Your task to perform on an android device: How do I get to the nearest Burger King? Image 0: 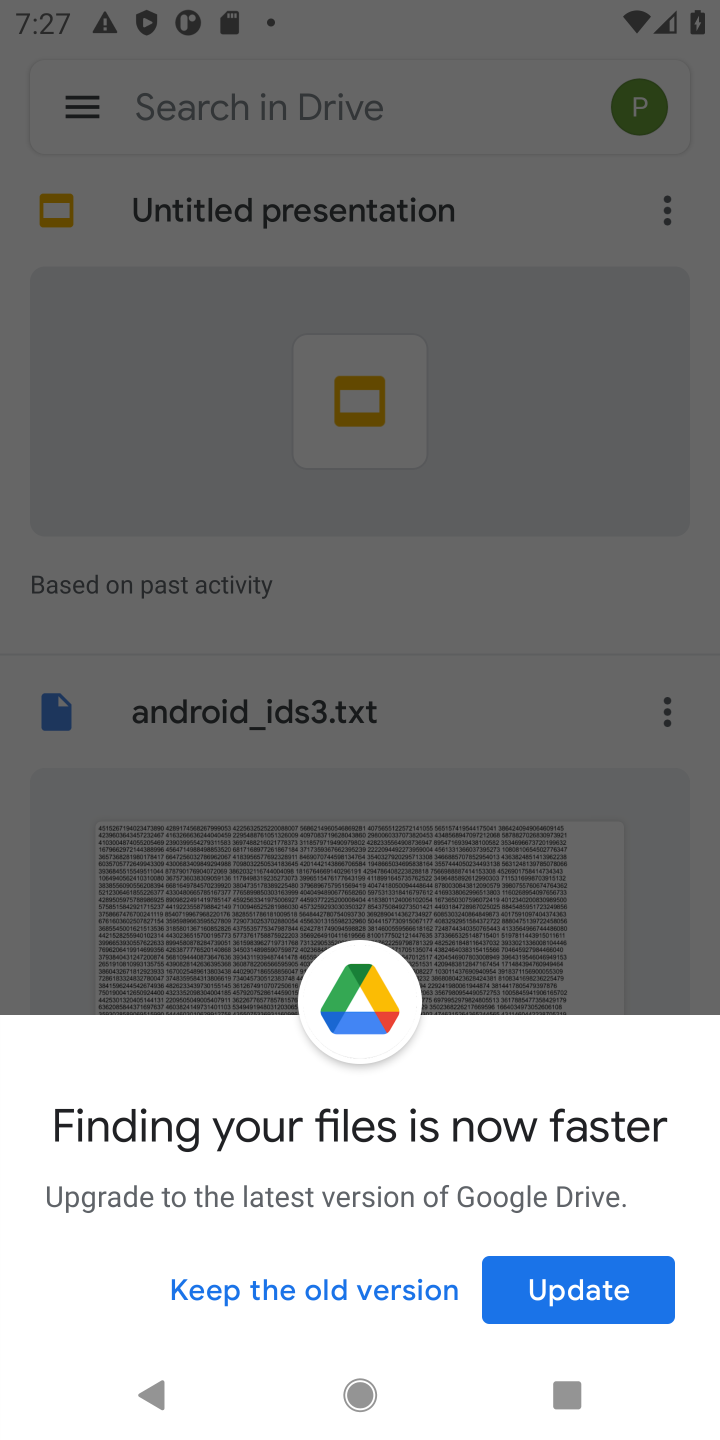
Step 0: press home button
Your task to perform on an android device: How do I get to the nearest Burger King? Image 1: 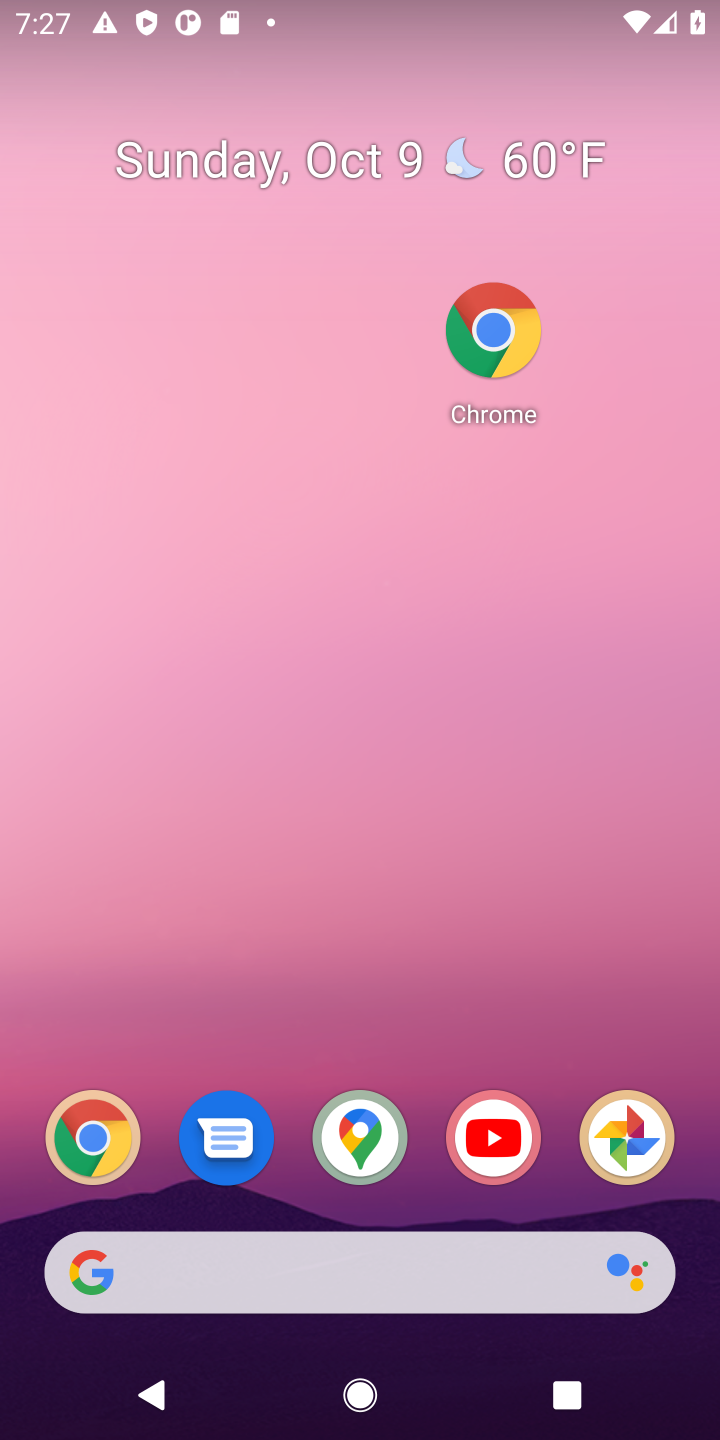
Step 1: click (97, 1139)
Your task to perform on an android device: How do I get to the nearest Burger King? Image 2: 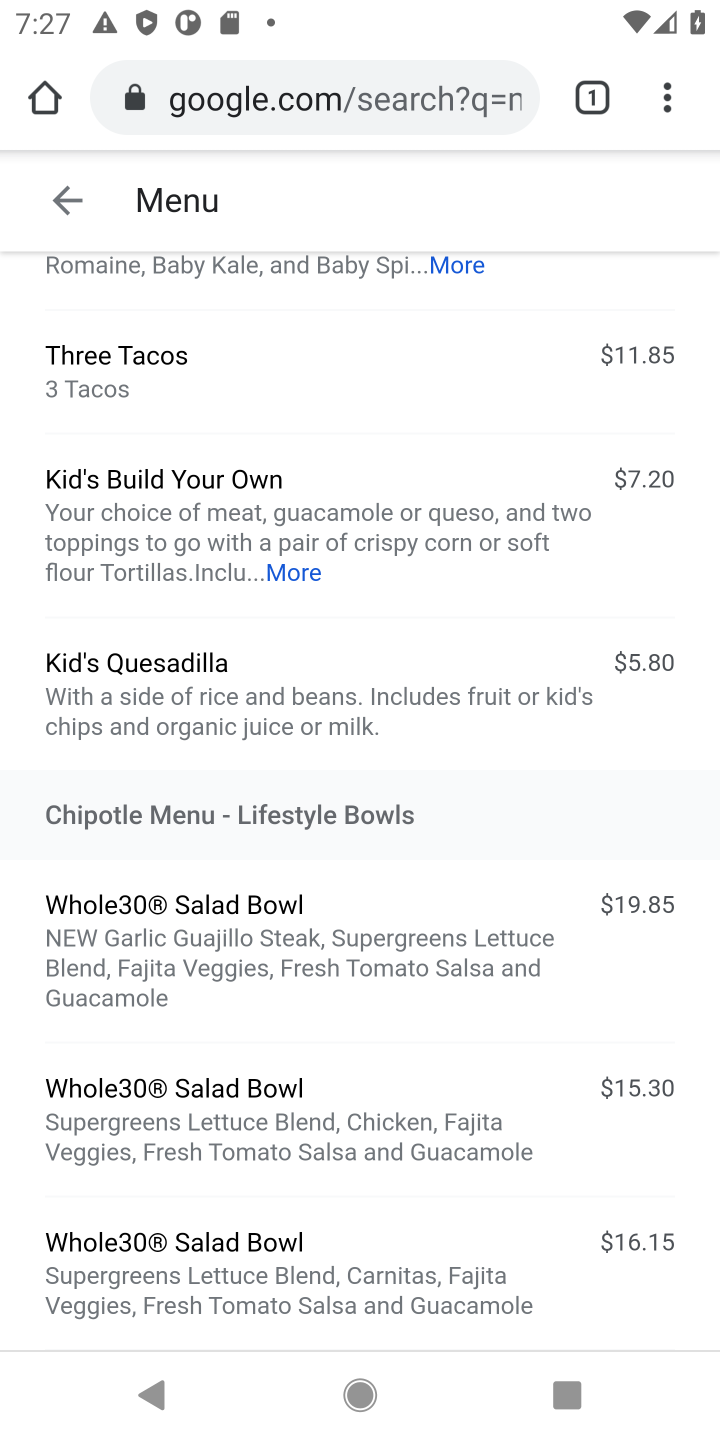
Step 2: click (320, 105)
Your task to perform on an android device: How do I get to the nearest Burger King? Image 3: 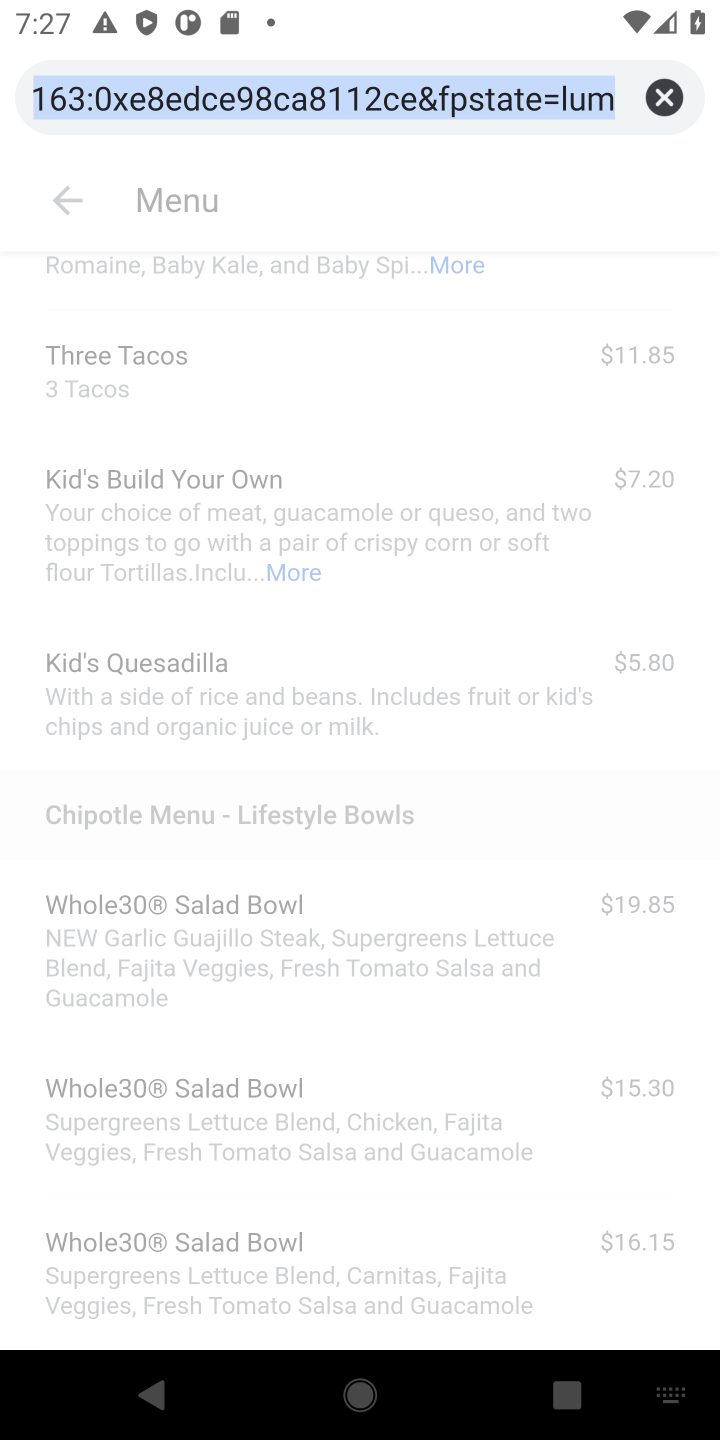
Step 3: type "nearest Burger King"
Your task to perform on an android device: How do I get to the nearest Burger King? Image 4: 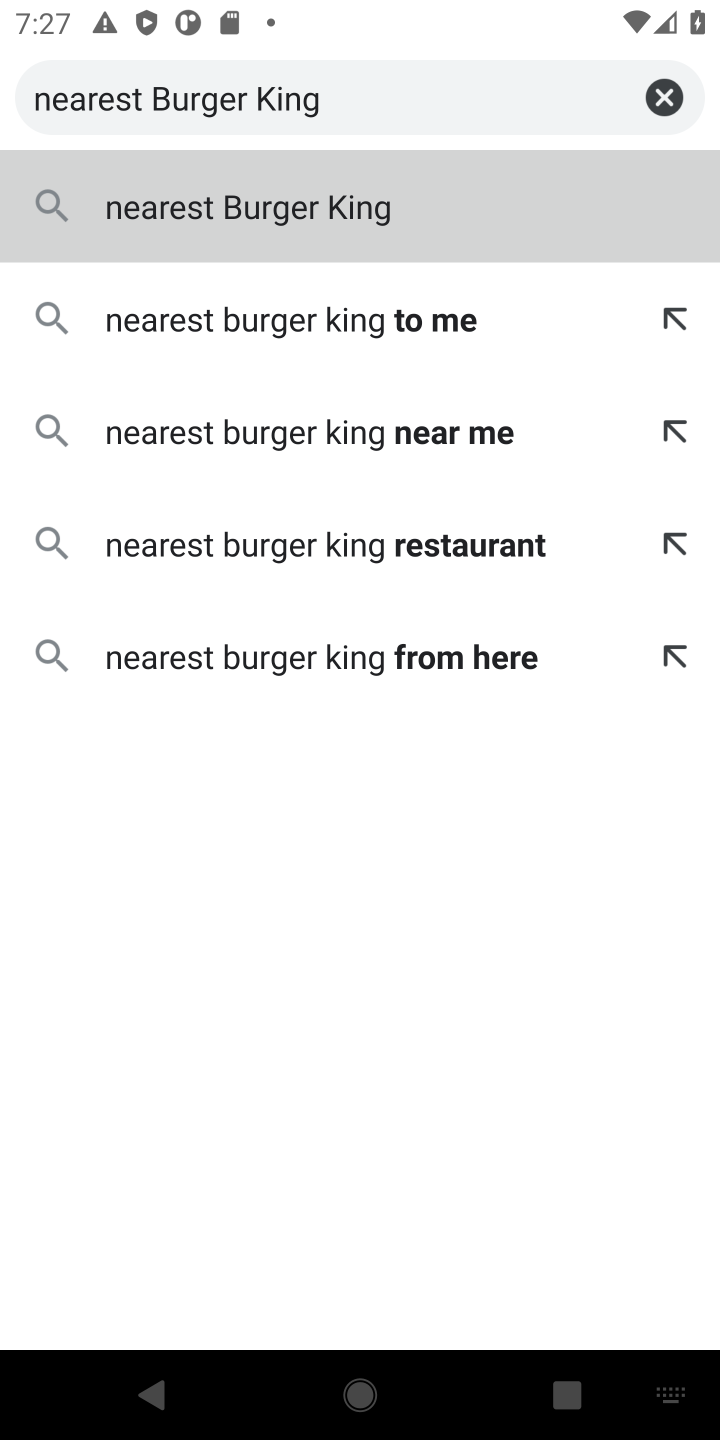
Step 4: click (380, 436)
Your task to perform on an android device: How do I get to the nearest Burger King? Image 5: 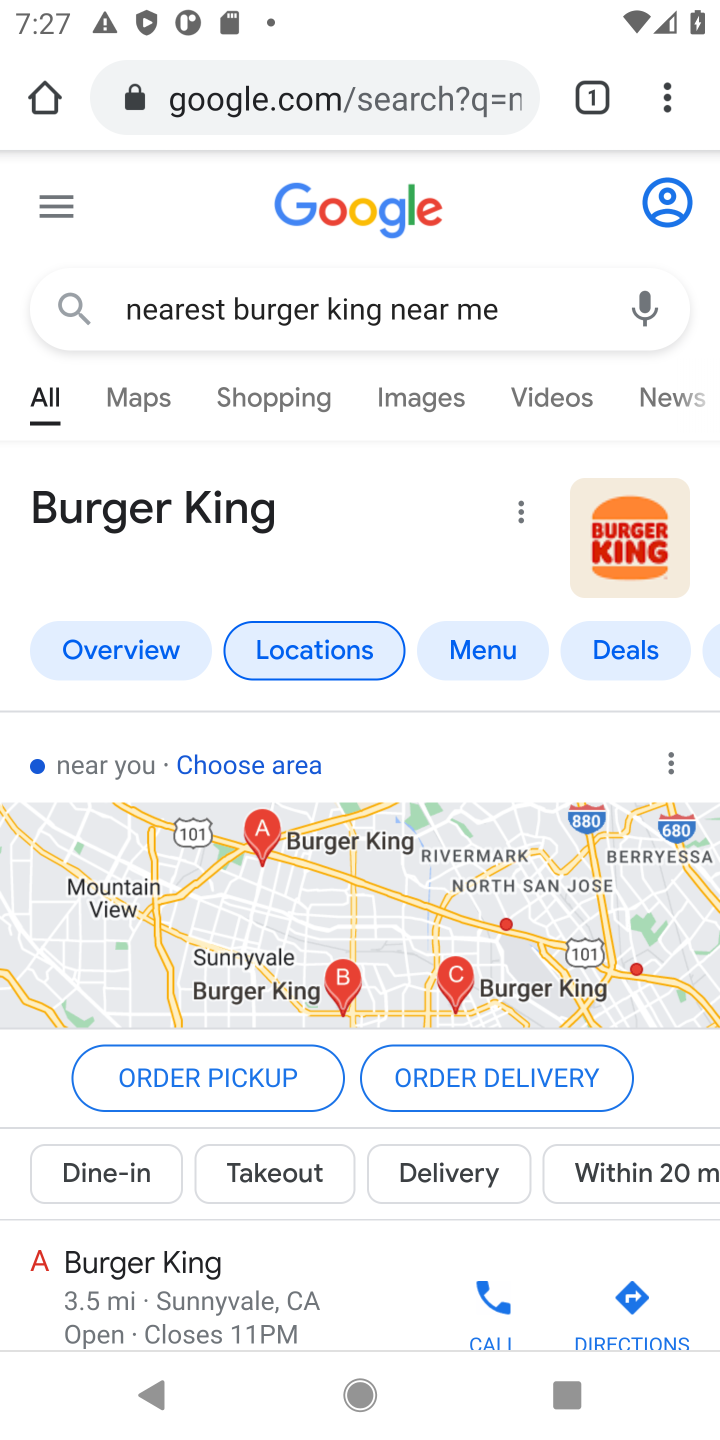
Step 5: drag from (485, 912) to (510, 340)
Your task to perform on an android device: How do I get to the nearest Burger King? Image 6: 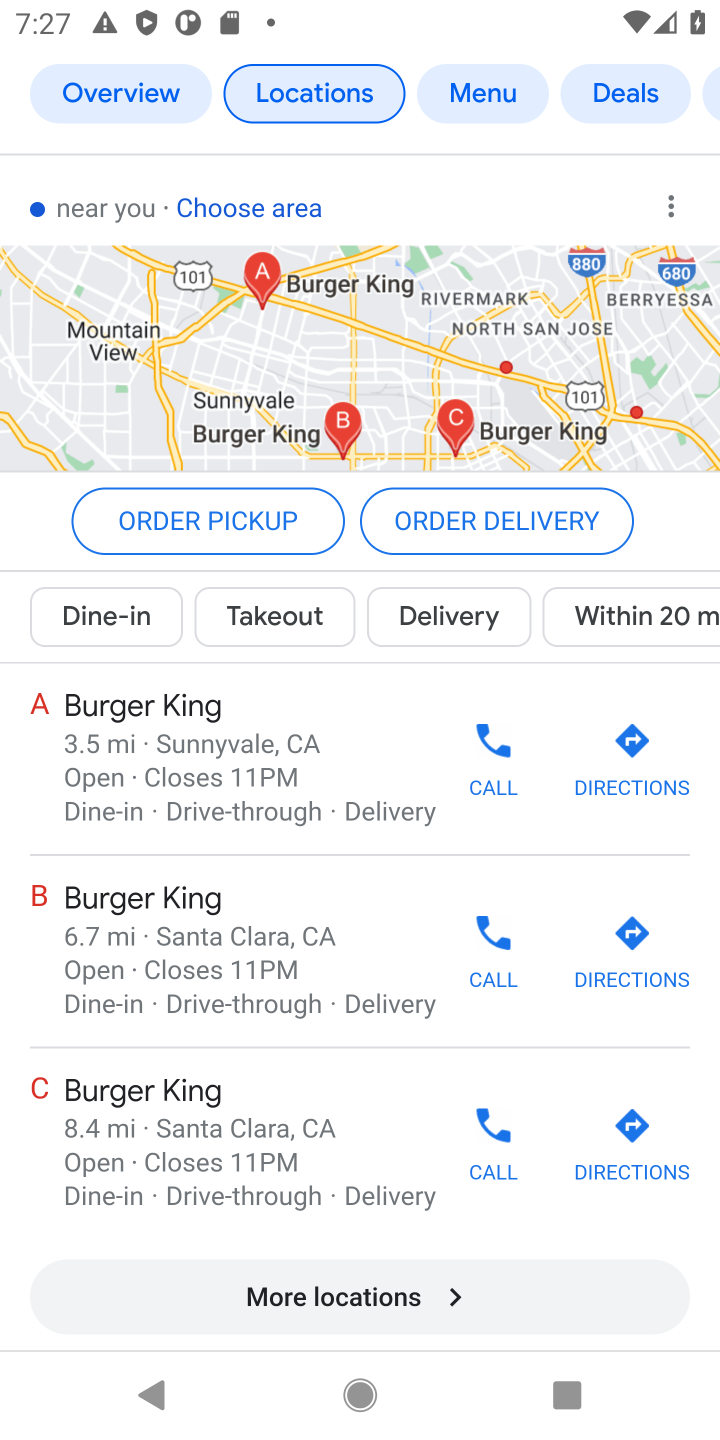
Step 6: drag from (406, 1034) to (356, 704)
Your task to perform on an android device: How do I get to the nearest Burger King? Image 7: 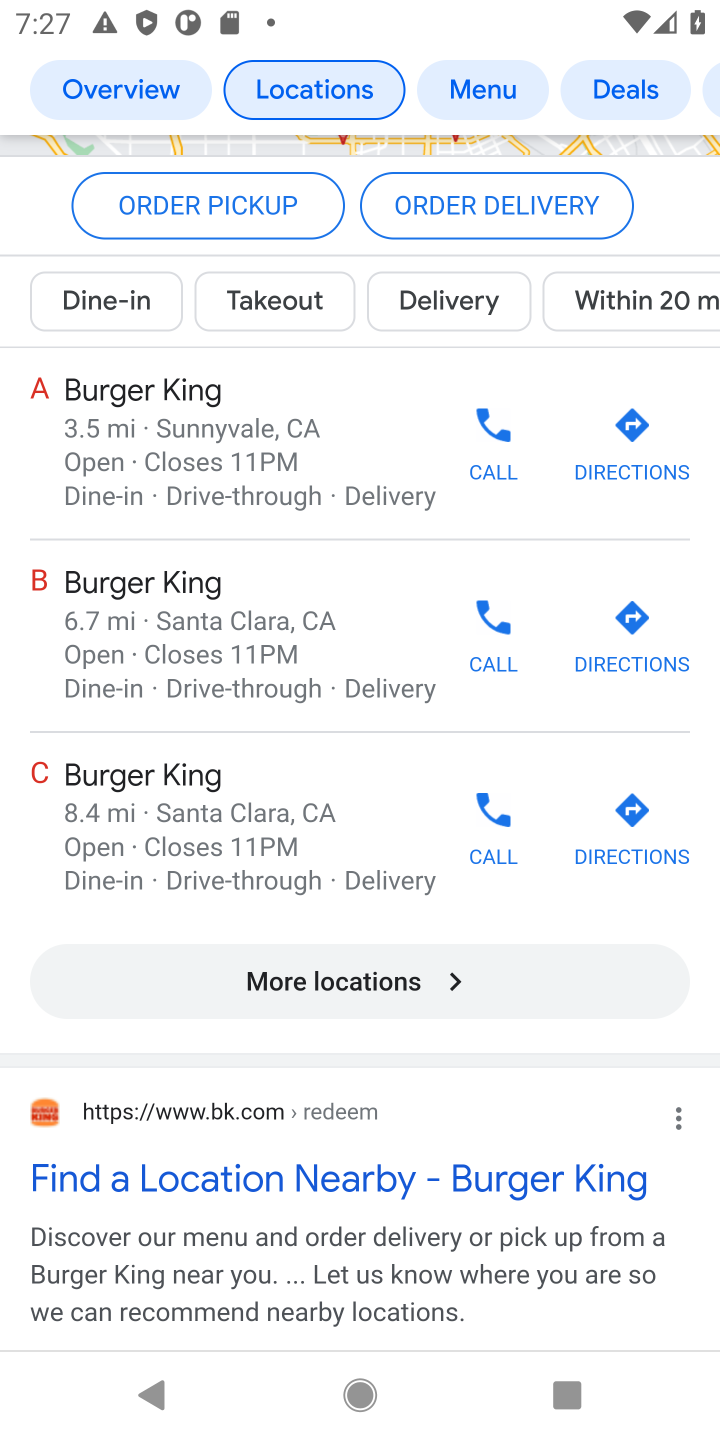
Step 7: click (385, 984)
Your task to perform on an android device: How do I get to the nearest Burger King? Image 8: 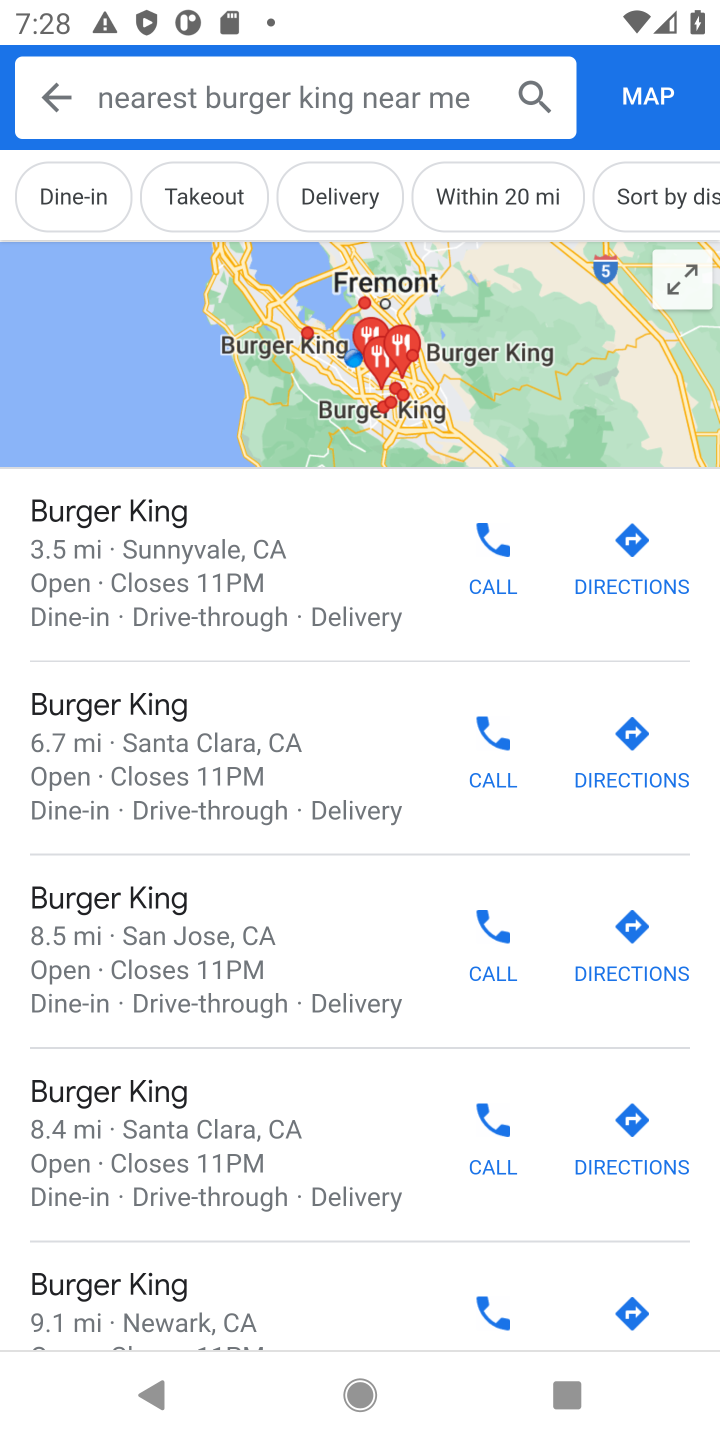
Step 8: task complete